Your task to perform on an android device: When is my next meeting? Image 0: 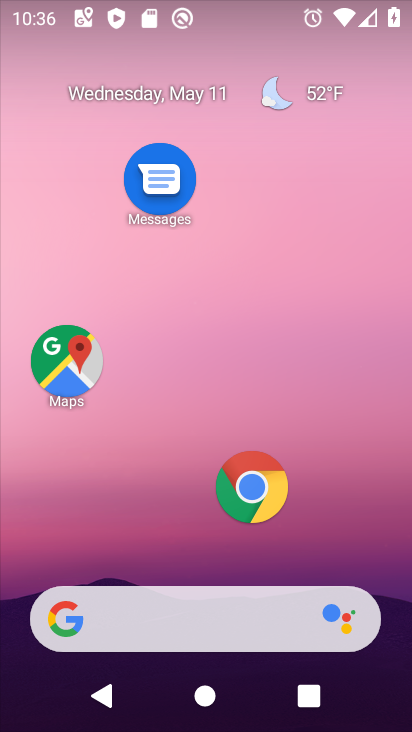
Step 0: drag from (182, 504) to (224, 196)
Your task to perform on an android device: When is my next meeting? Image 1: 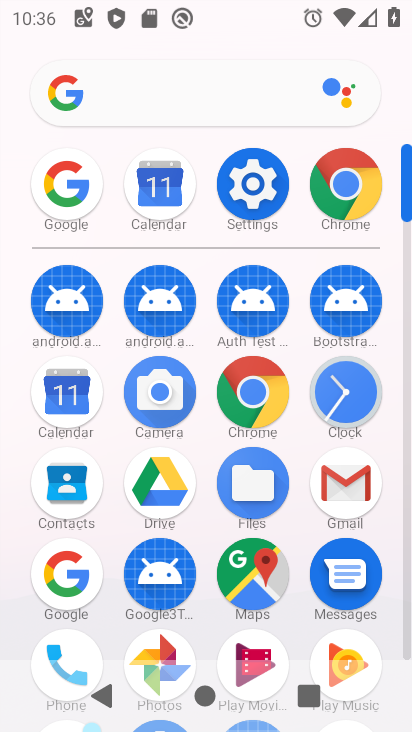
Step 1: click (82, 396)
Your task to perform on an android device: When is my next meeting? Image 2: 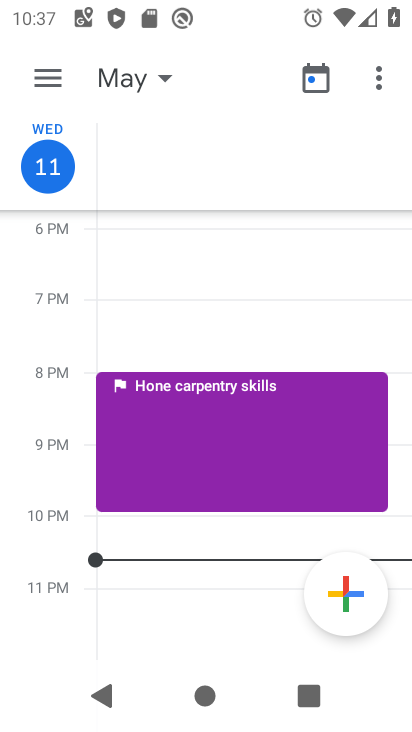
Step 2: click (168, 80)
Your task to perform on an android device: When is my next meeting? Image 3: 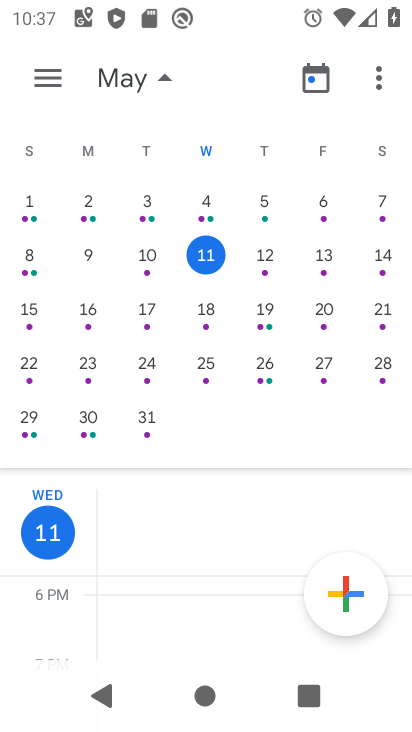
Step 3: drag from (226, 496) to (201, 209)
Your task to perform on an android device: When is my next meeting? Image 4: 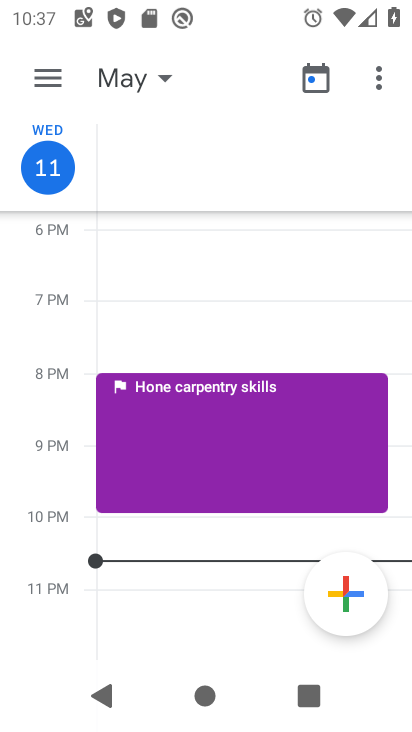
Step 4: click (54, 83)
Your task to perform on an android device: When is my next meeting? Image 5: 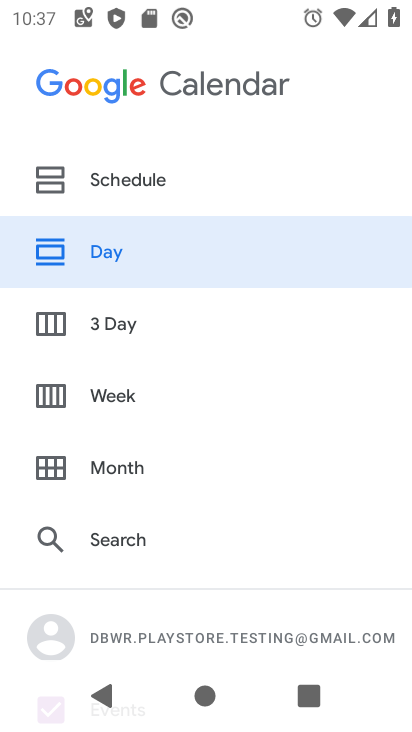
Step 5: click (166, 173)
Your task to perform on an android device: When is my next meeting? Image 6: 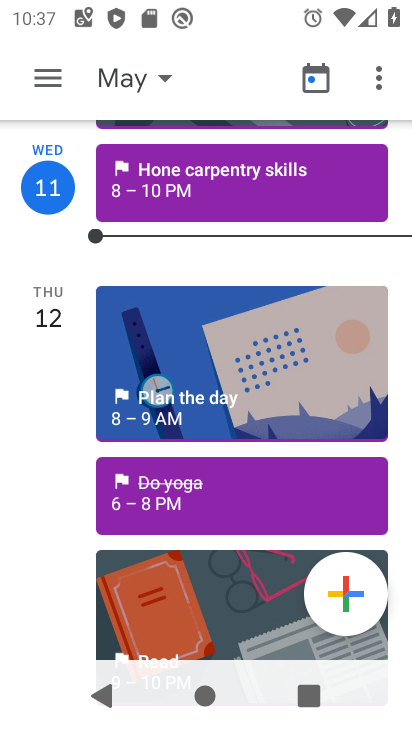
Step 6: drag from (248, 280) to (252, 486)
Your task to perform on an android device: When is my next meeting? Image 7: 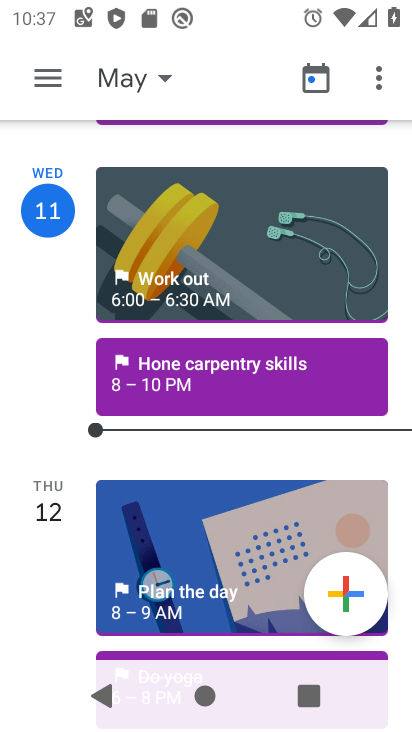
Step 7: drag from (227, 272) to (234, 522)
Your task to perform on an android device: When is my next meeting? Image 8: 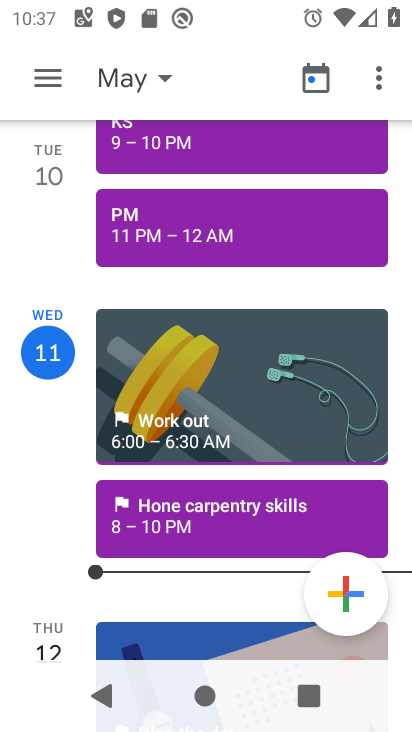
Step 8: drag from (188, 228) to (210, 494)
Your task to perform on an android device: When is my next meeting? Image 9: 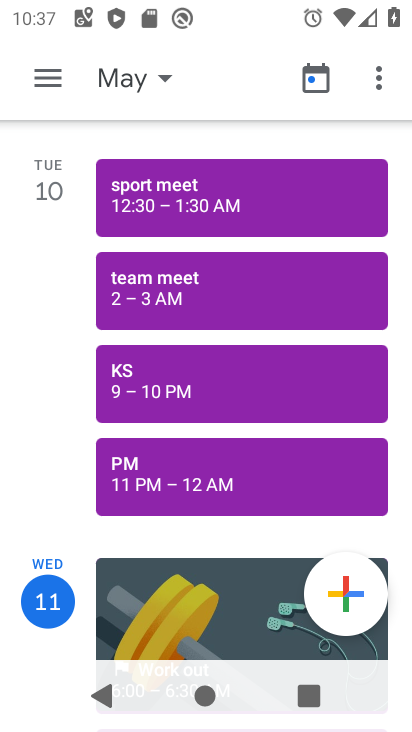
Step 9: click (210, 280)
Your task to perform on an android device: When is my next meeting? Image 10: 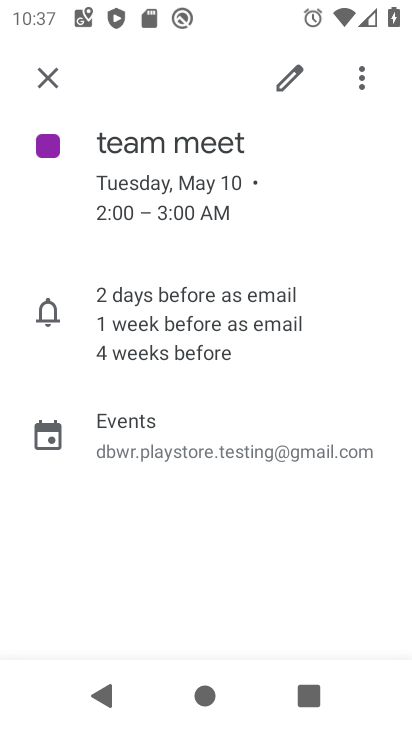
Step 10: task complete